Your task to perform on an android device: open app "File Manager" Image 0: 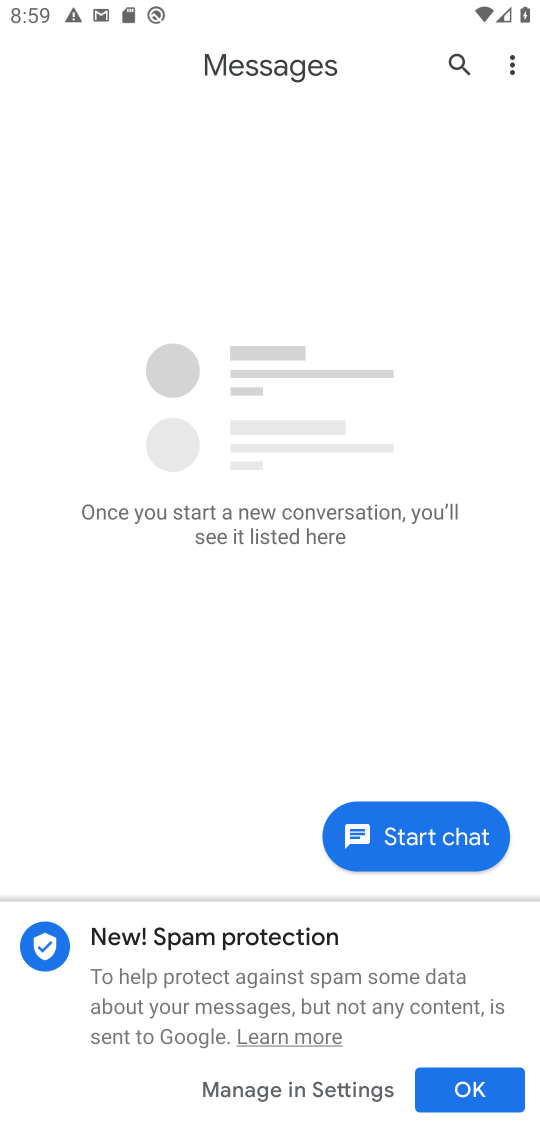
Step 0: press home button
Your task to perform on an android device: open app "File Manager" Image 1: 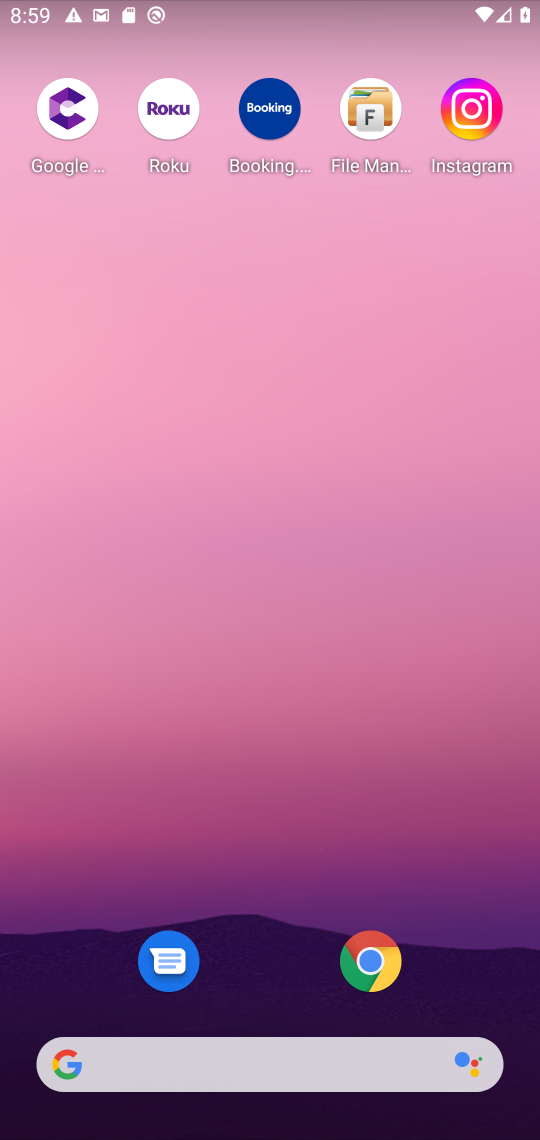
Step 1: click (351, 114)
Your task to perform on an android device: open app "File Manager" Image 2: 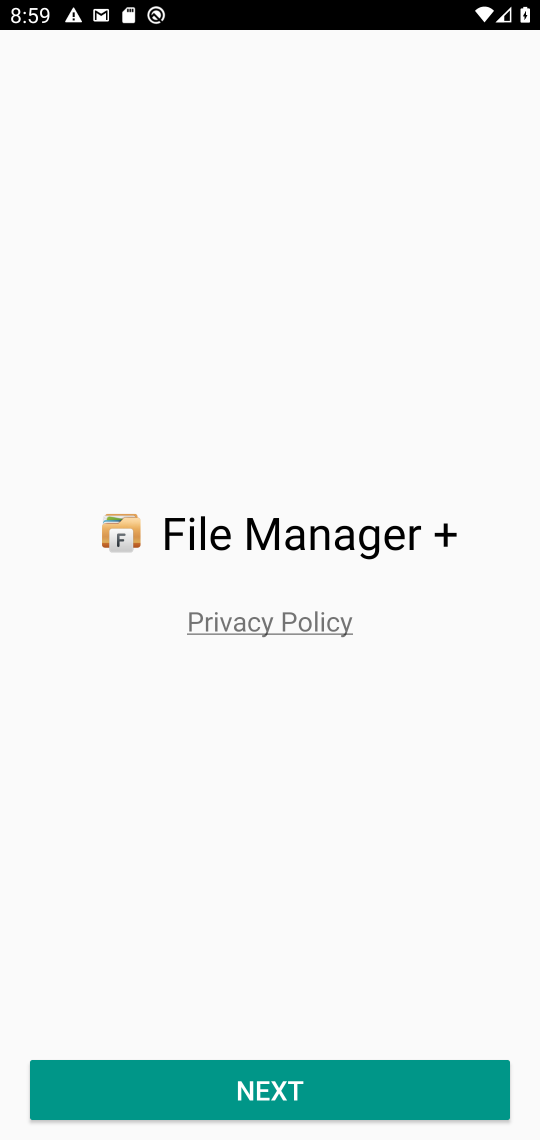
Step 2: task complete